Your task to perform on an android device: turn off notifications in google photos Image 0: 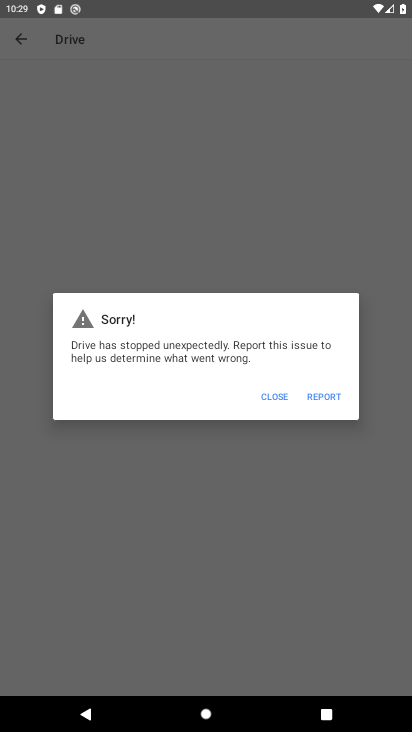
Step 0: press home button
Your task to perform on an android device: turn off notifications in google photos Image 1: 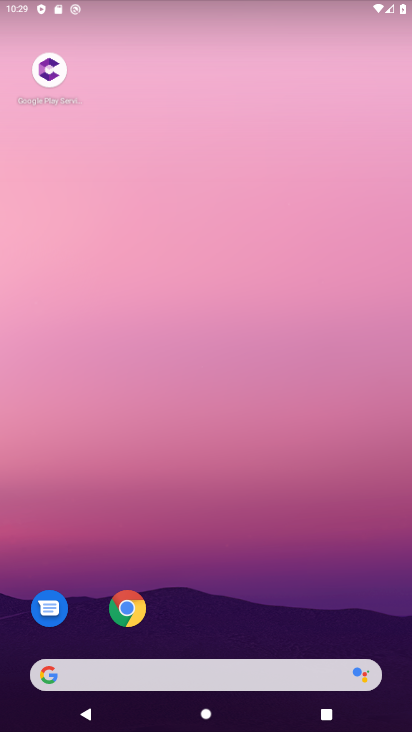
Step 1: drag from (346, 517) to (290, 82)
Your task to perform on an android device: turn off notifications in google photos Image 2: 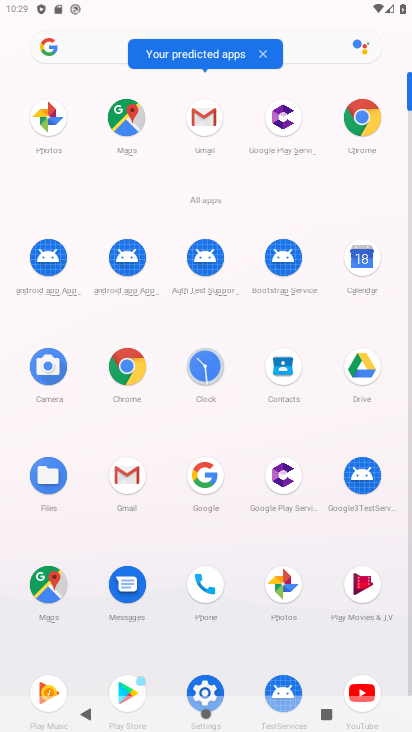
Step 2: click (287, 589)
Your task to perform on an android device: turn off notifications in google photos Image 3: 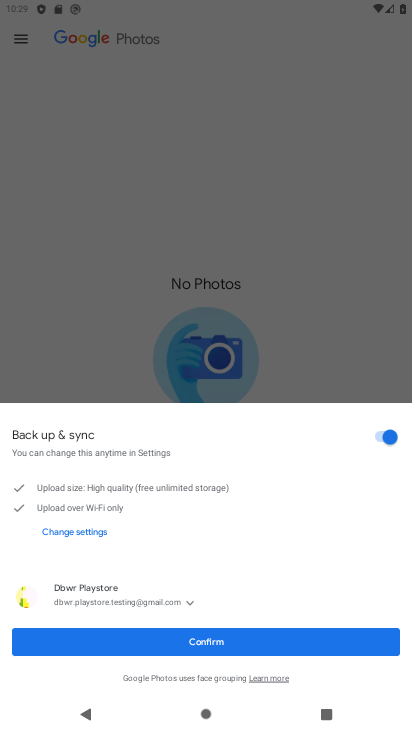
Step 3: click (302, 640)
Your task to perform on an android device: turn off notifications in google photos Image 4: 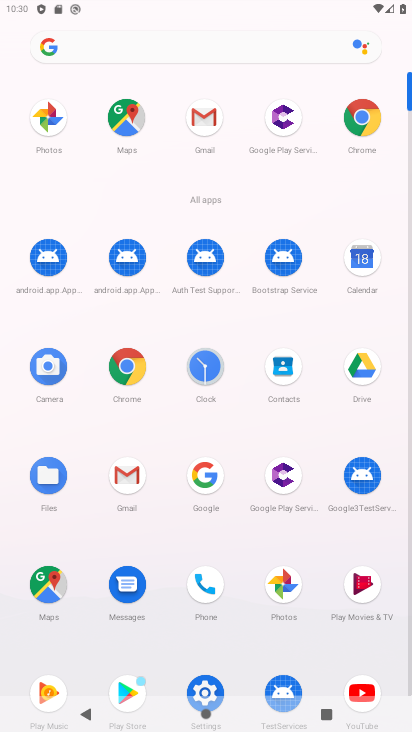
Step 4: click (279, 596)
Your task to perform on an android device: turn off notifications in google photos Image 5: 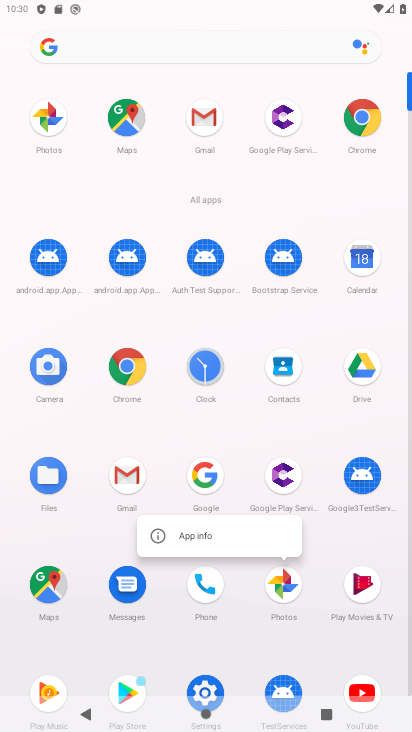
Step 5: click (279, 596)
Your task to perform on an android device: turn off notifications in google photos Image 6: 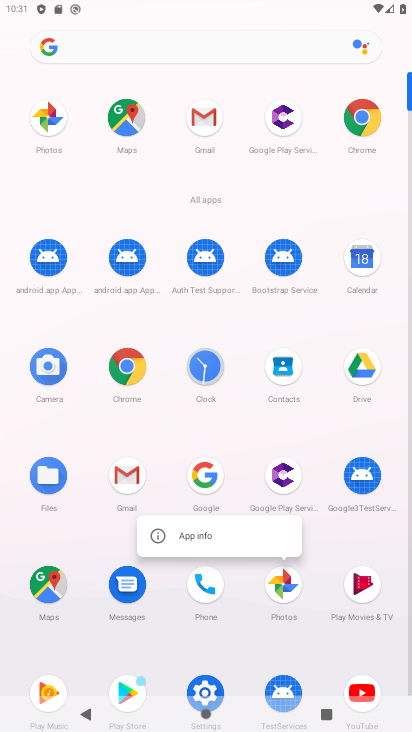
Step 6: click (283, 597)
Your task to perform on an android device: turn off notifications in google photos Image 7: 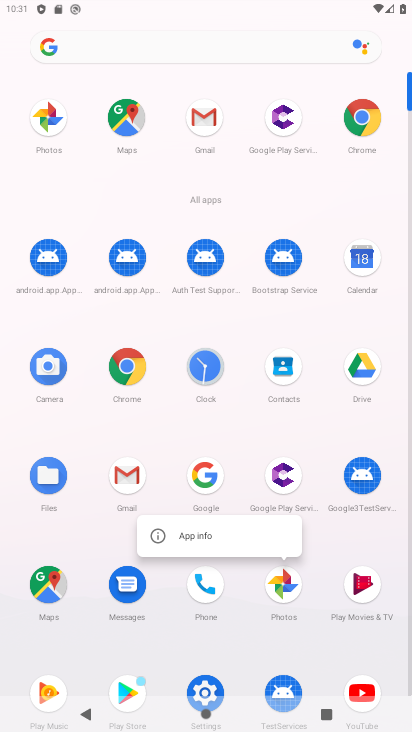
Step 7: click (244, 552)
Your task to perform on an android device: turn off notifications in google photos Image 8: 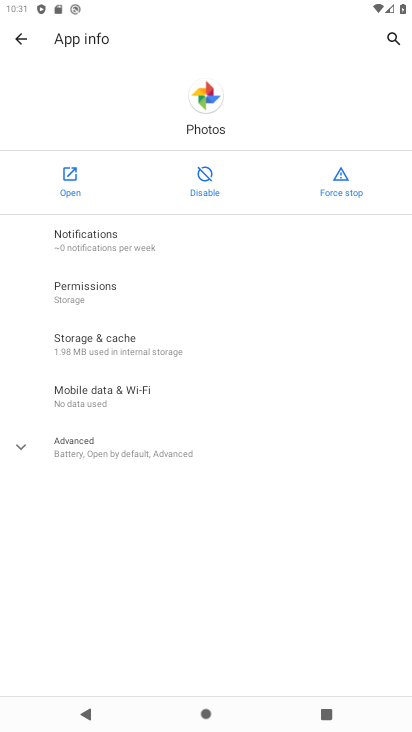
Step 8: click (58, 241)
Your task to perform on an android device: turn off notifications in google photos Image 9: 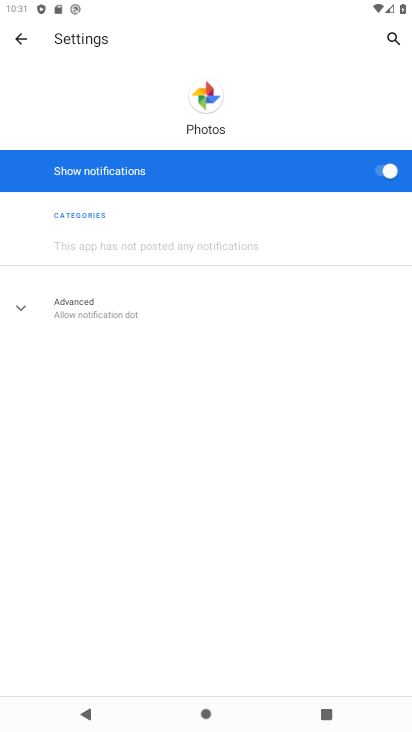
Step 9: click (392, 168)
Your task to perform on an android device: turn off notifications in google photos Image 10: 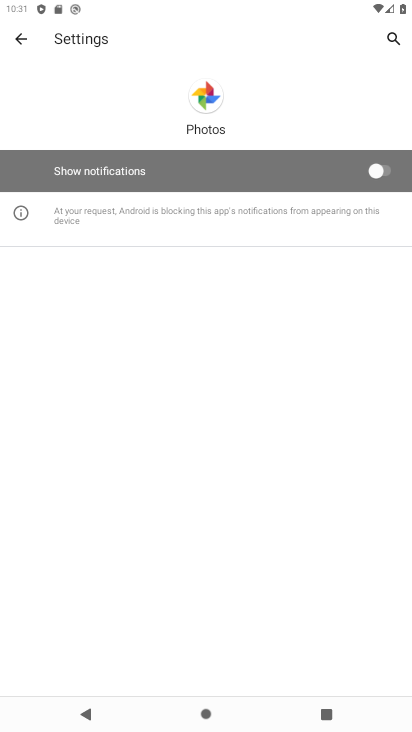
Step 10: task complete